Your task to perform on an android device: Open calendar and show me the second week of next month Image 0: 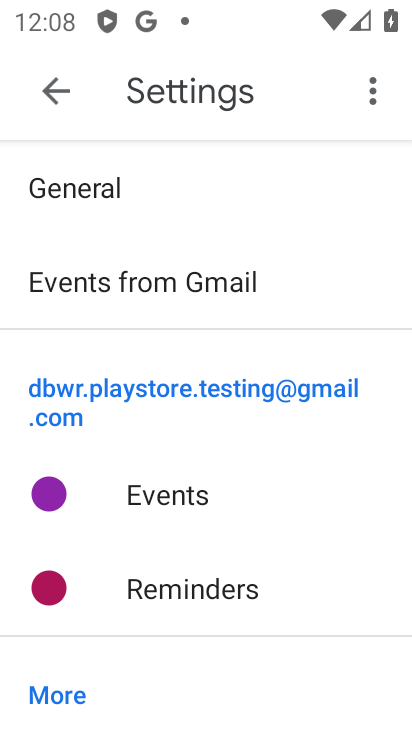
Step 0: press home button
Your task to perform on an android device: Open calendar and show me the second week of next month Image 1: 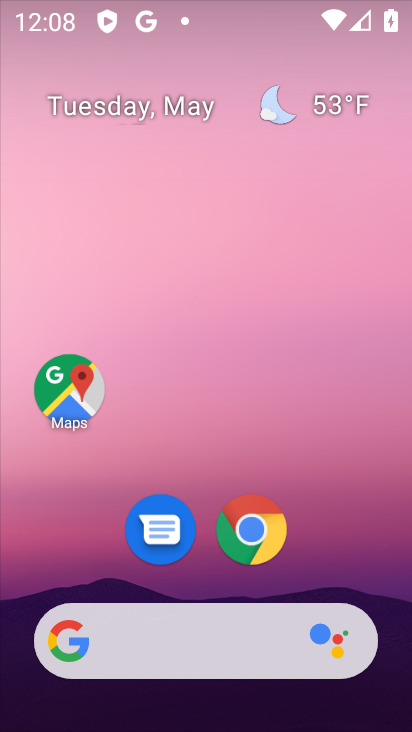
Step 1: drag from (214, 715) to (214, 215)
Your task to perform on an android device: Open calendar and show me the second week of next month Image 2: 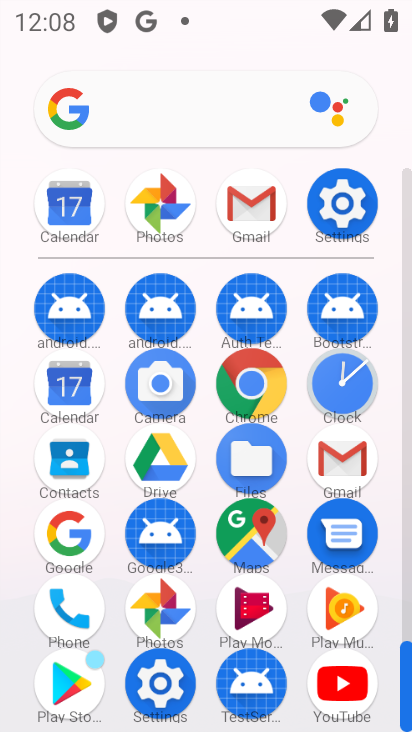
Step 2: click (74, 383)
Your task to perform on an android device: Open calendar and show me the second week of next month Image 3: 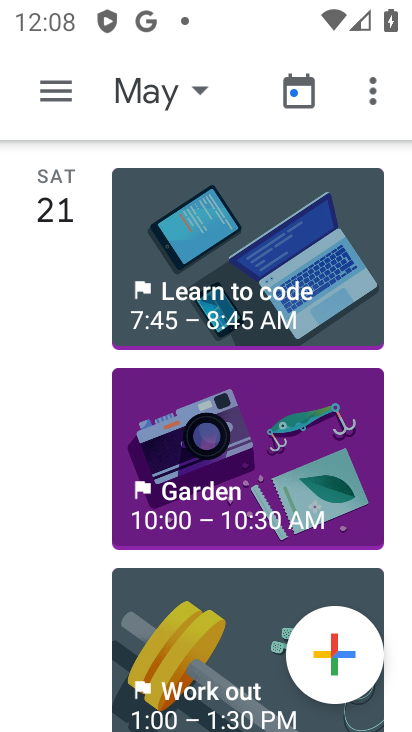
Step 3: click (153, 92)
Your task to perform on an android device: Open calendar and show me the second week of next month Image 4: 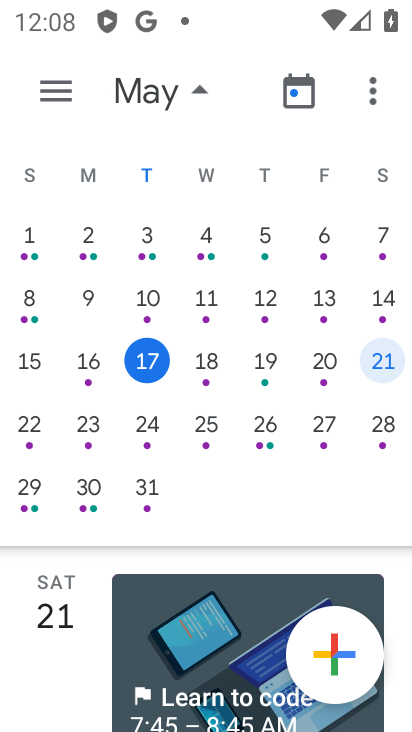
Step 4: drag from (359, 322) to (18, 324)
Your task to perform on an android device: Open calendar and show me the second week of next month Image 5: 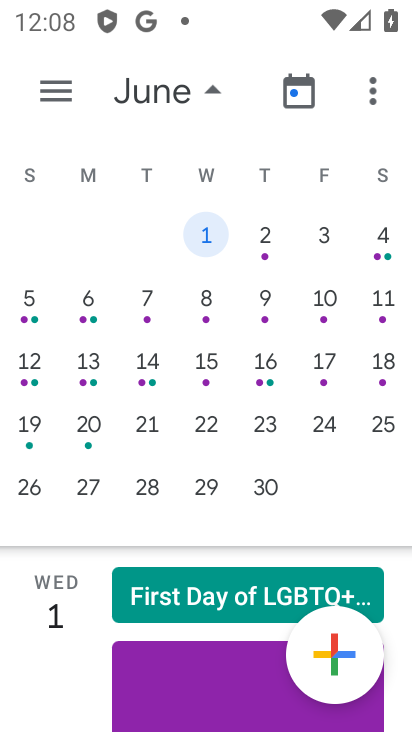
Step 5: click (93, 358)
Your task to perform on an android device: Open calendar and show me the second week of next month Image 6: 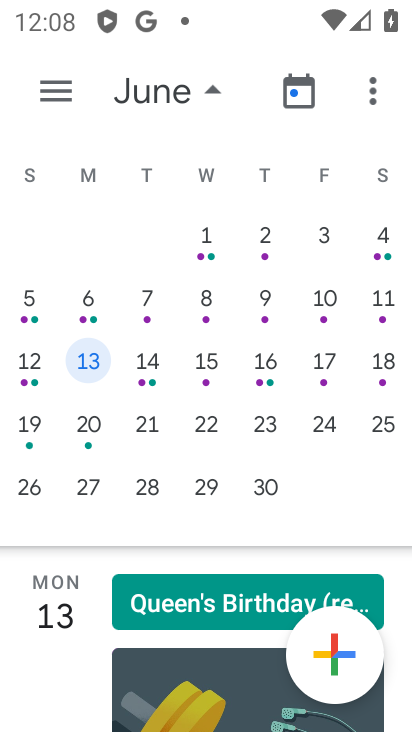
Step 6: click (57, 96)
Your task to perform on an android device: Open calendar and show me the second week of next month Image 7: 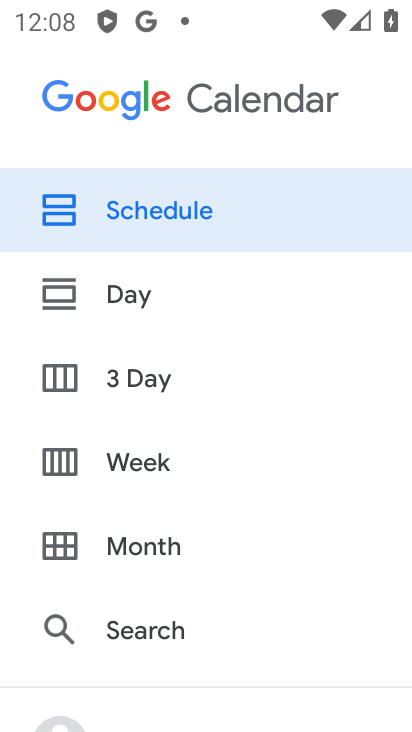
Step 7: click (130, 464)
Your task to perform on an android device: Open calendar and show me the second week of next month Image 8: 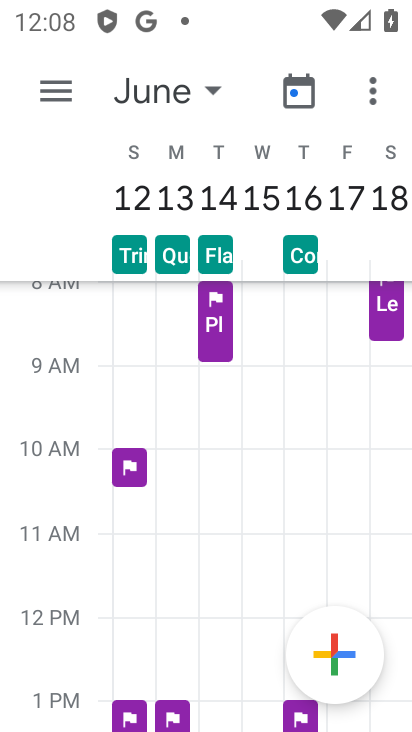
Step 8: task complete